Your task to perform on an android device: Search for vegetarian restaurants on Maps Image 0: 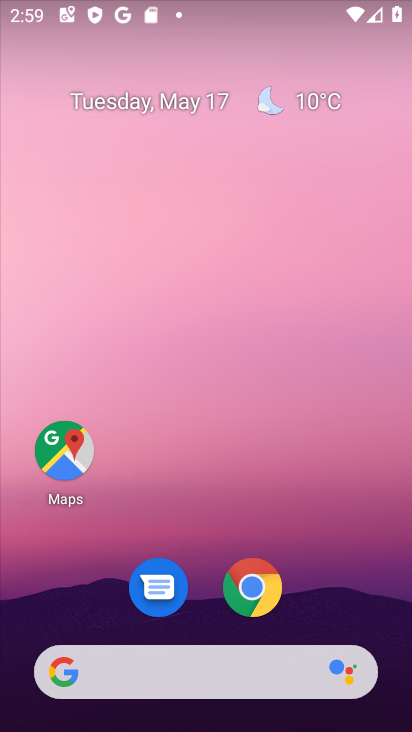
Step 0: drag from (345, 580) to (257, 31)
Your task to perform on an android device: Search for vegetarian restaurants on Maps Image 1: 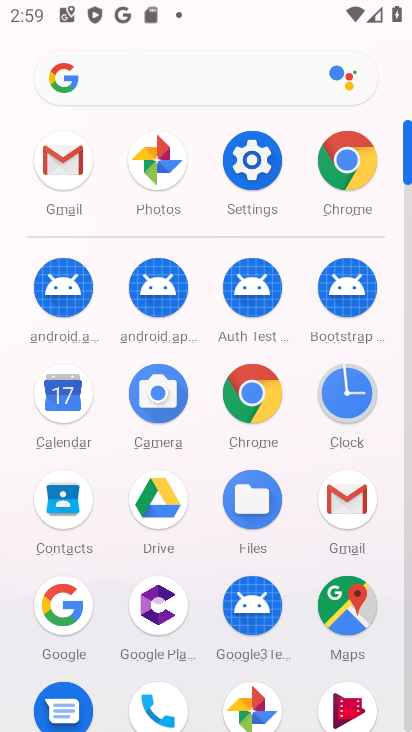
Step 1: drag from (15, 556) to (6, 244)
Your task to perform on an android device: Search for vegetarian restaurants on Maps Image 2: 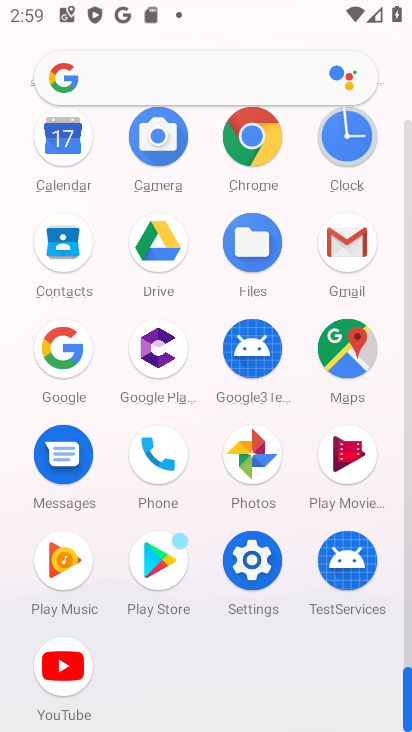
Step 2: click (345, 341)
Your task to perform on an android device: Search for vegetarian restaurants on Maps Image 3: 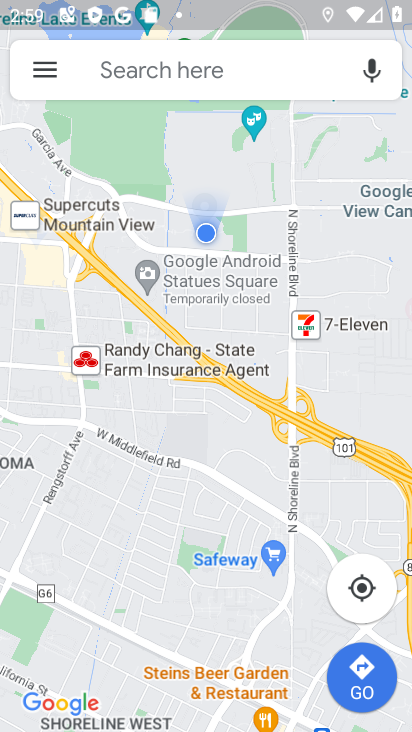
Step 3: click (234, 55)
Your task to perform on an android device: Search for vegetarian restaurants on Maps Image 4: 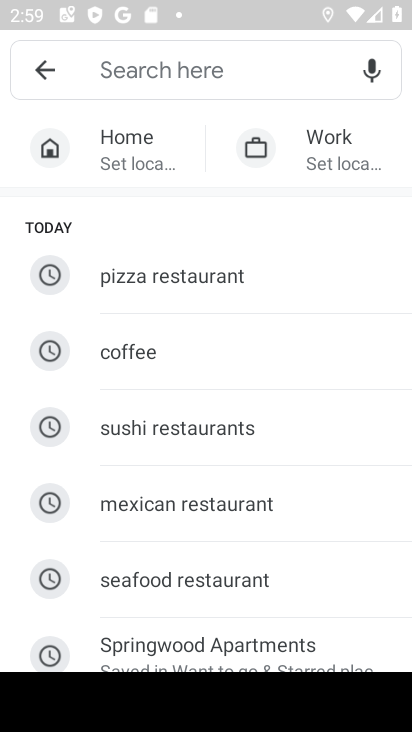
Step 4: type "vegetarian restaurants"
Your task to perform on an android device: Search for vegetarian restaurants on Maps Image 5: 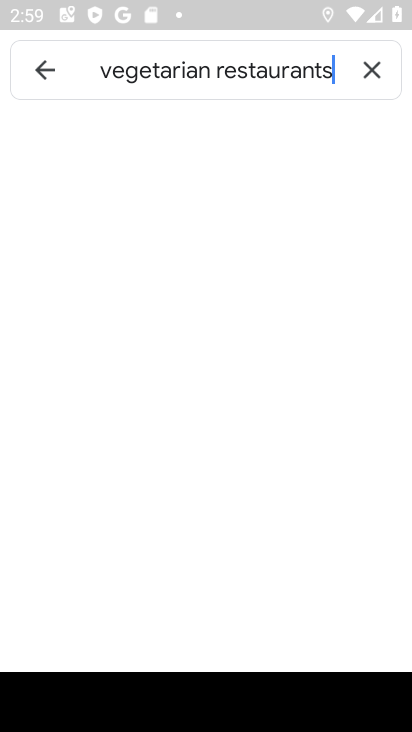
Step 5: type ""
Your task to perform on an android device: Search for vegetarian restaurants on Maps Image 6: 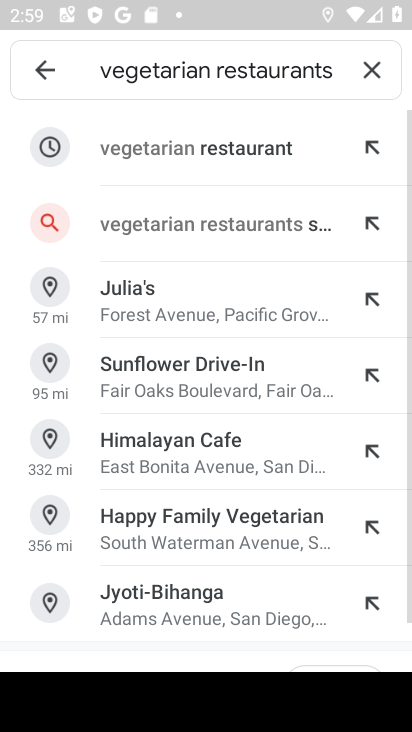
Step 6: click (215, 158)
Your task to perform on an android device: Search for vegetarian restaurants on Maps Image 7: 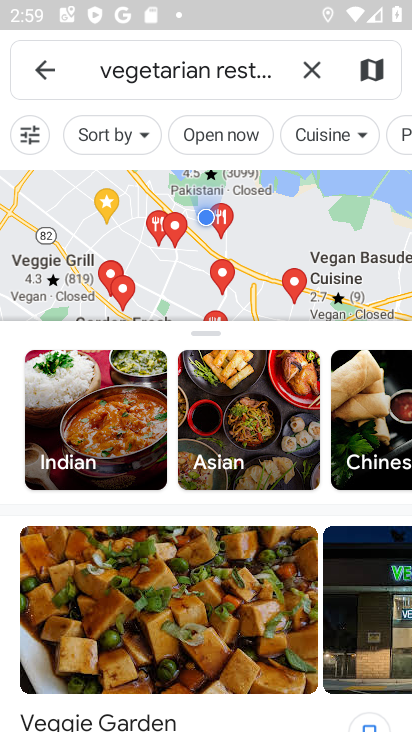
Step 7: task complete